Your task to perform on an android device: add a label to a message in the gmail app Image 0: 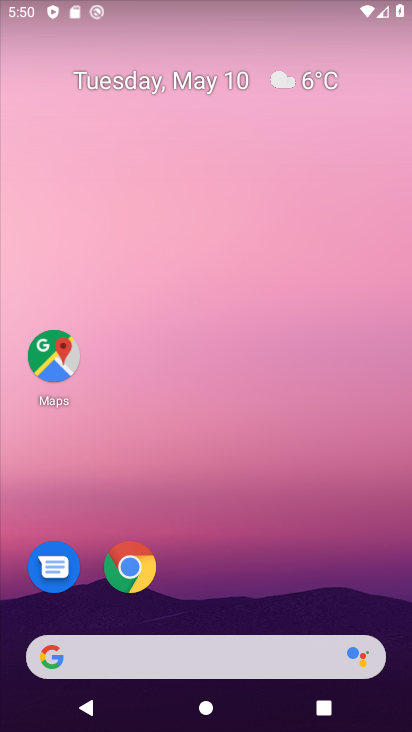
Step 0: drag from (233, 584) to (249, 99)
Your task to perform on an android device: add a label to a message in the gmail app Image 1: 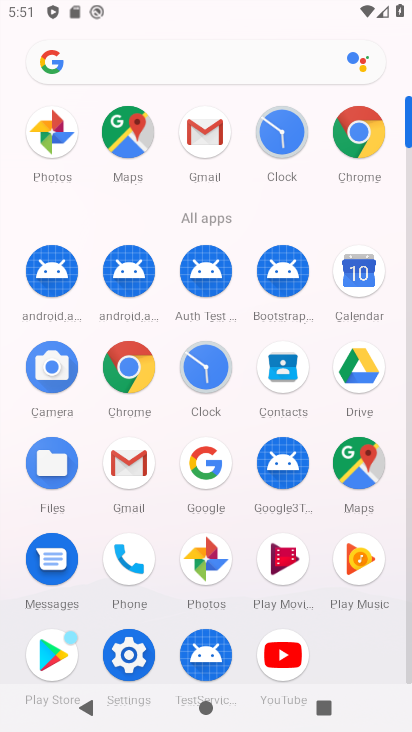
Step 1: click (206, 133)
Your task to perform on an android device: add a label to a message in the gmail app Image 2: 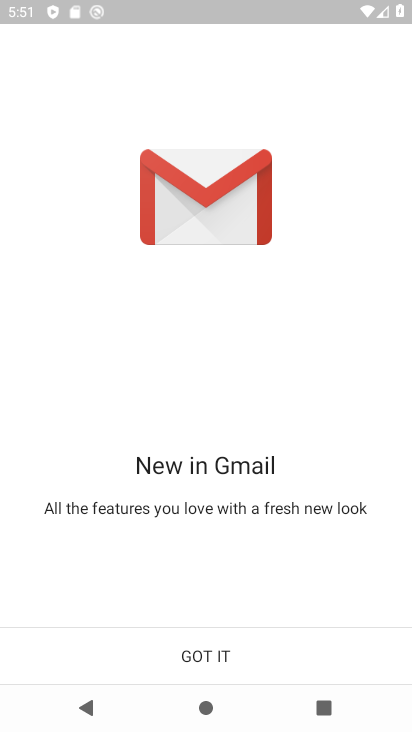
Step 2: click (198, 651)
Your task to perform on an android device: add a label to a message in the gmail app Image 3: 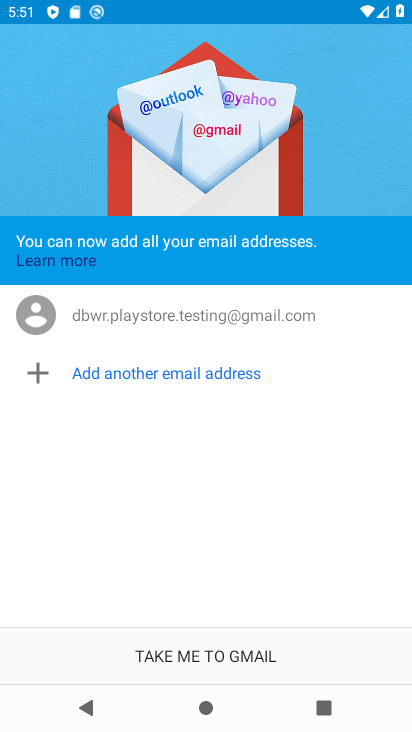
Step 3: click (240, 654)
Your task to perform on an android device: add a label to a message in the gmail app Image 4: 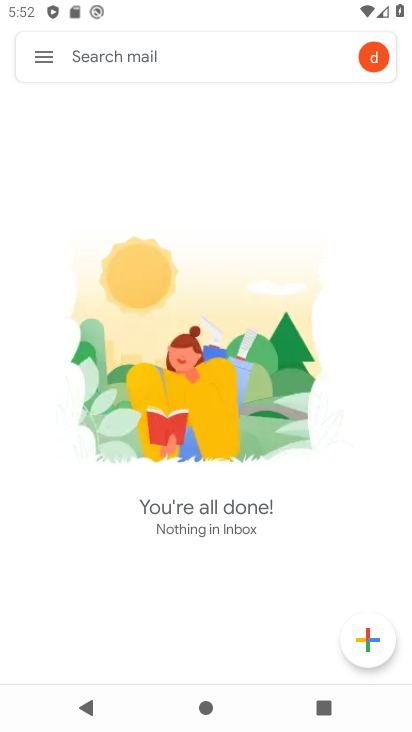
Step 4: task complete